Your task to perform on an android device: Open wifi settings Image 0: 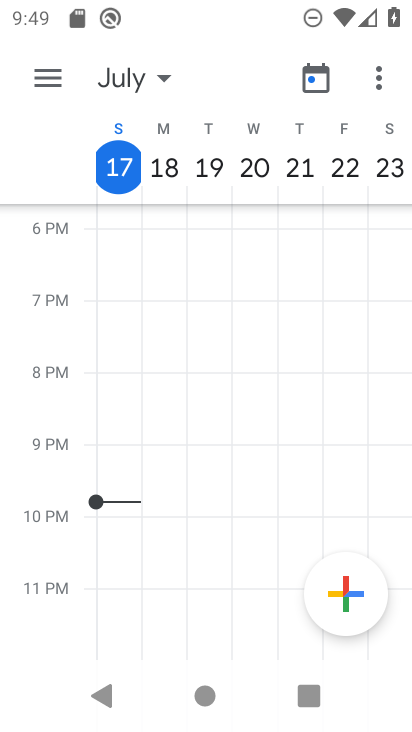
Step 0: press home button
Your task to perform on an android device: Open wifi settings Image 1: 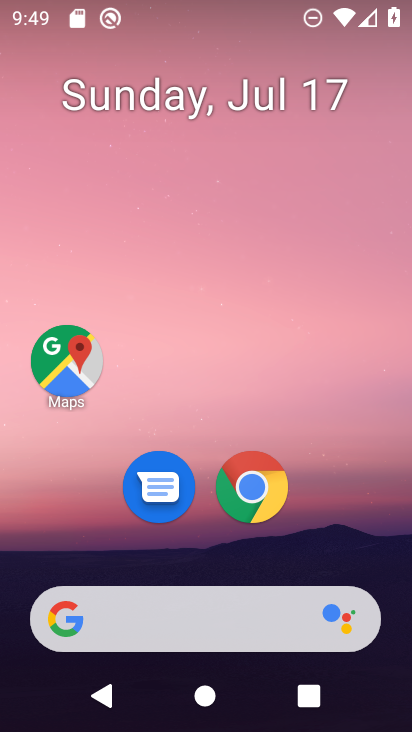
Step 1: drag from (340, 549) to (349, 62)
Your task to perform on an android device: Open wifi settings Image 2: 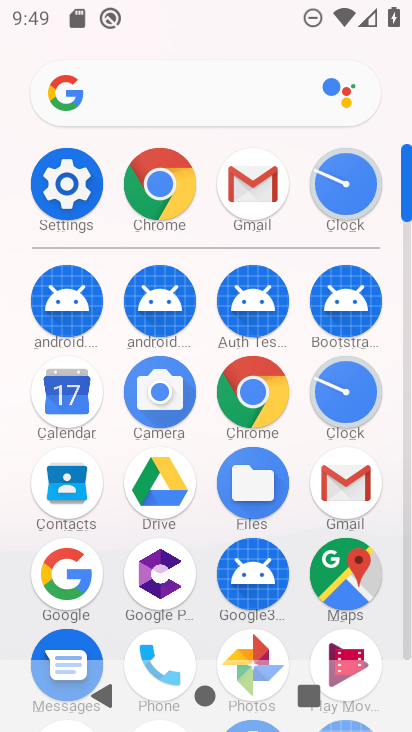
Step 2: click (53, 182)
Your task to perform on an android device: Open wifi settings Image 3: 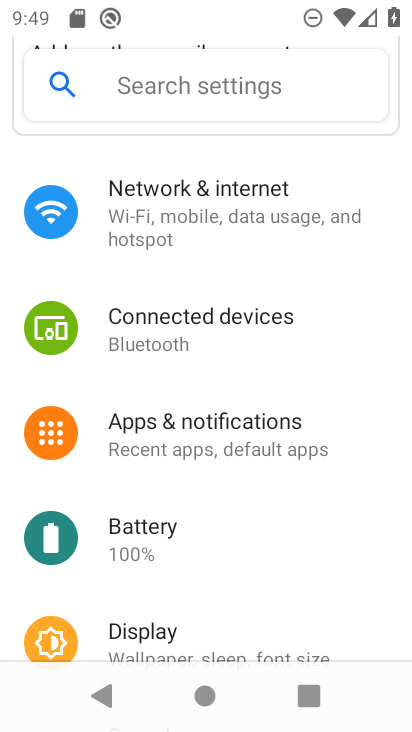
Step 3: click (129, 208)
Your task to perform on an android device: Open wifi settings Image 4: 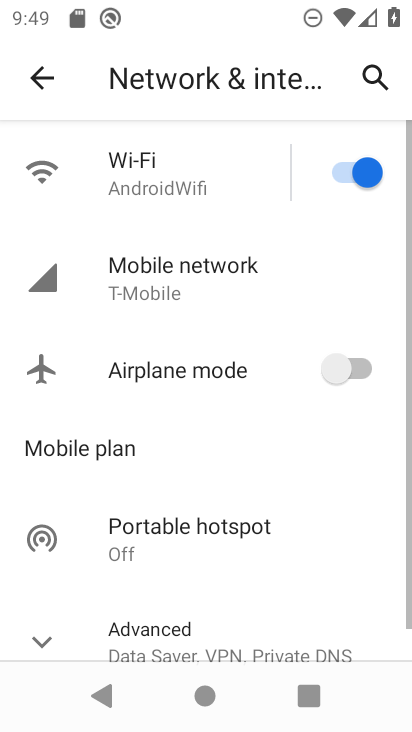
Step 4: click (122, 163)
Your task to perform on an android device: Open wifi settings Image 5: 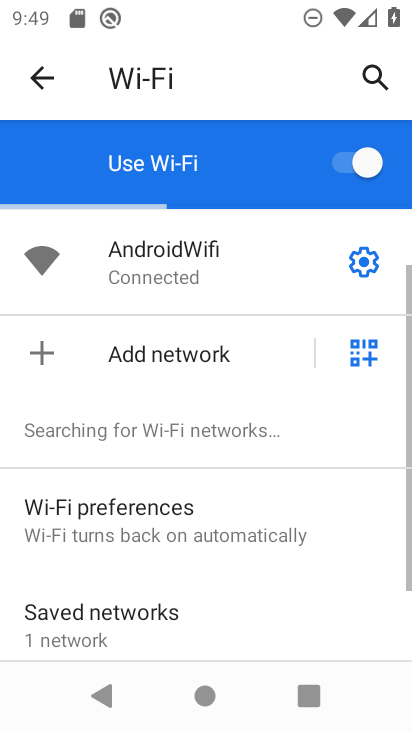
Step 5: task complete